Your task to perform on an android device: open chrome and create a bookmark for the current page Image 0: 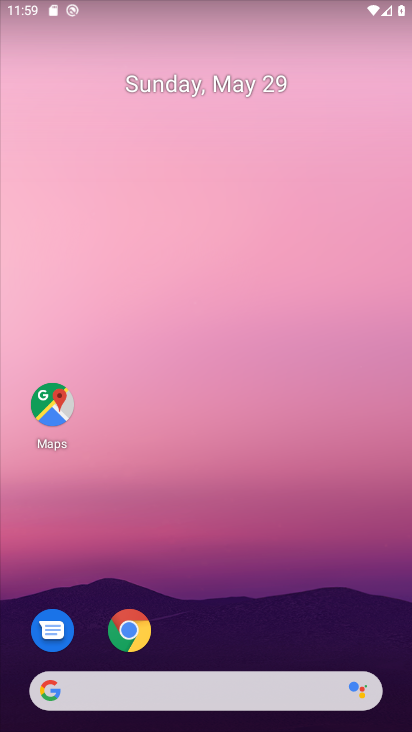
Step 0: drag from (315, 654) to (242, 51)
Your task to perform on an android device: open chrome and create a bookmark for the current page Image 1: 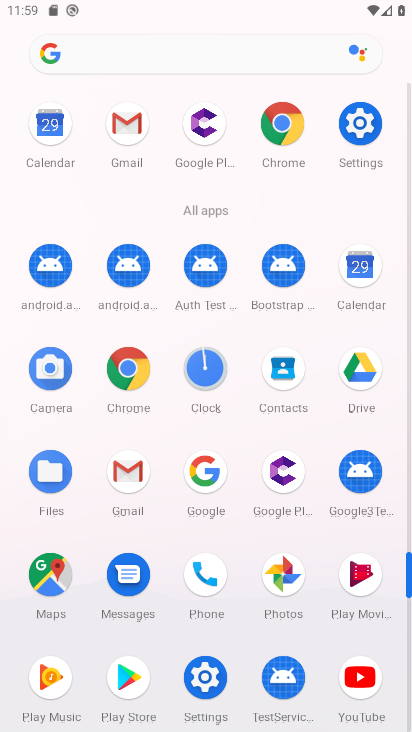
Step 1: click (123, 369)
Your task to perform on an android device: open chrome and create a bookmark for the current page Image 2: 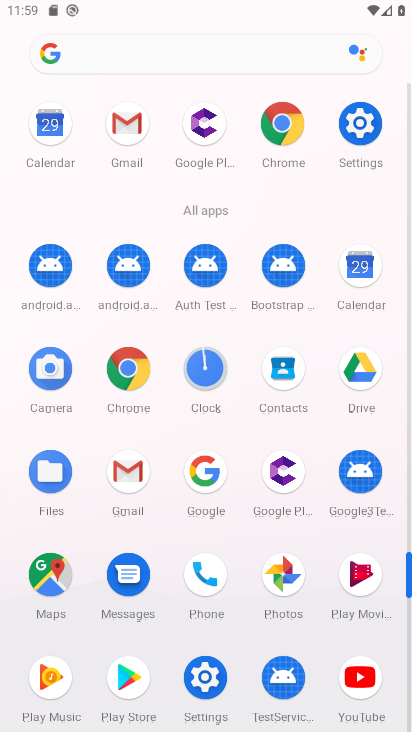
Step 2: click (125, 368)
Your task to perform on an android device: open chrome and create a bookmark for the current page Image 3: 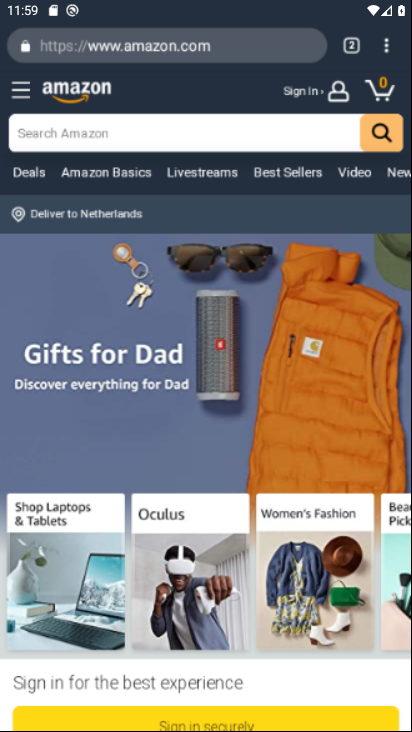
Step 3: click (130, 365)
Your task to perform on an android device: open chrome and create a bookmark for the current page Image 4: 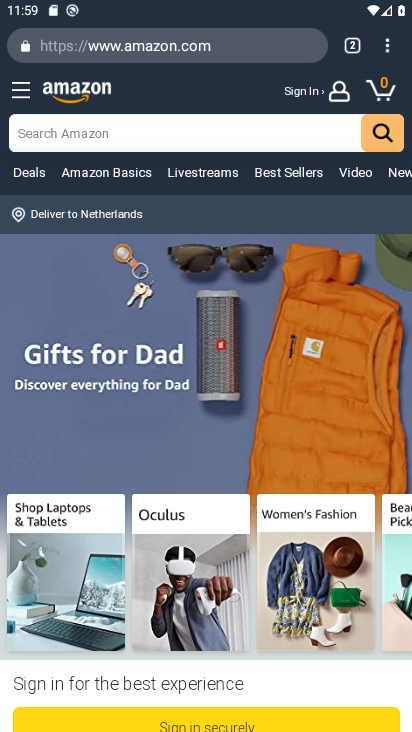
Step 4: drag from (383, 45) to (243, 44)
Your task to perform on an android device: open chrome and create a bookmark for the current page Image 5: 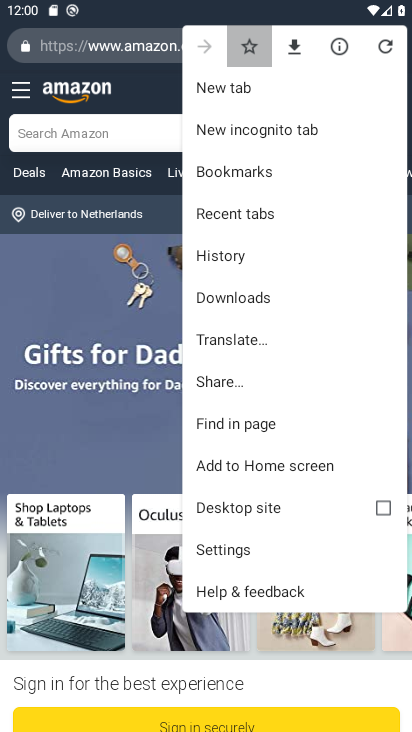
Step 5: click (243, 44)
Your task to perform on an android device: open chrome and create a bookmark for the current page Image 6: 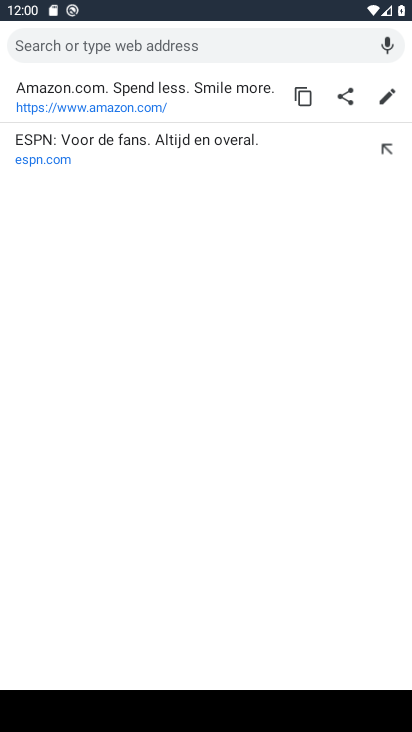
Step 6: task complete